Your task to perform on an android device: Open the calendar app, open the side menu, and click the "Day" option Image 0: 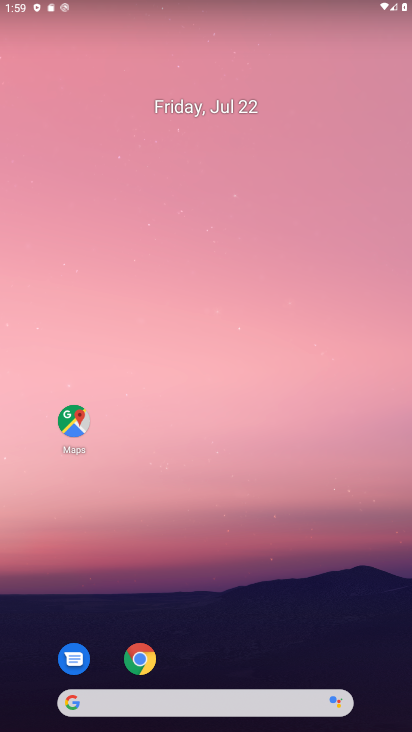
Step 0: drag from (267, 632) to (300, 139)
Your task to perform on an android device: Open the calendar app, open the side menu, and click the "Day" option Image 1: 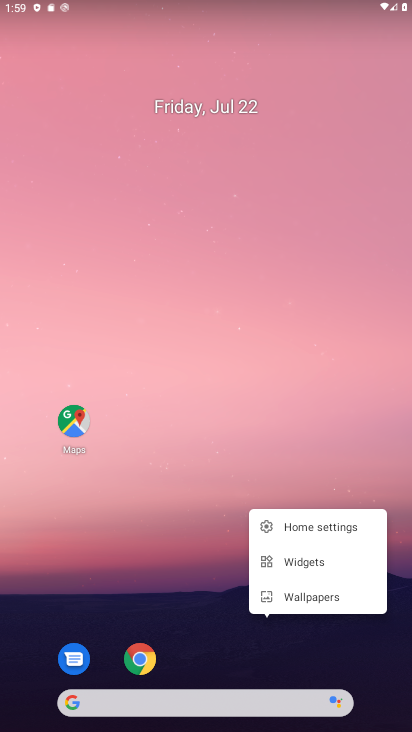
Step 1: click (190, 336)
Your task to perform on an android device: Open the calendar app, open the side menu, and click the "Day" option Image 2: 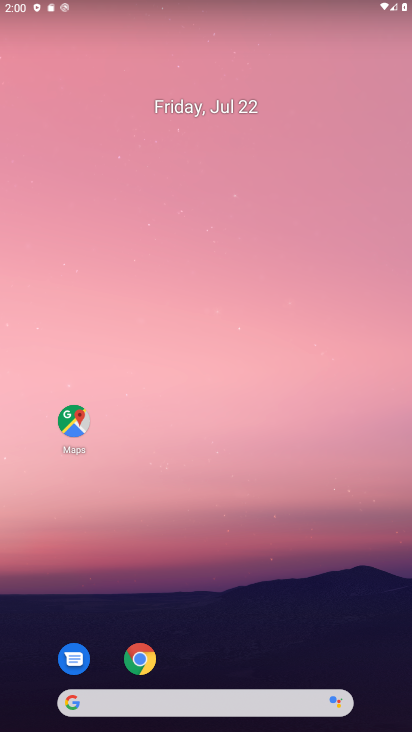
Step 2: task complete